Your task to perform on an android device: Show the shopping cart on bestbuy. Add "logitech g502" to the cart on bestbuy Image 0: 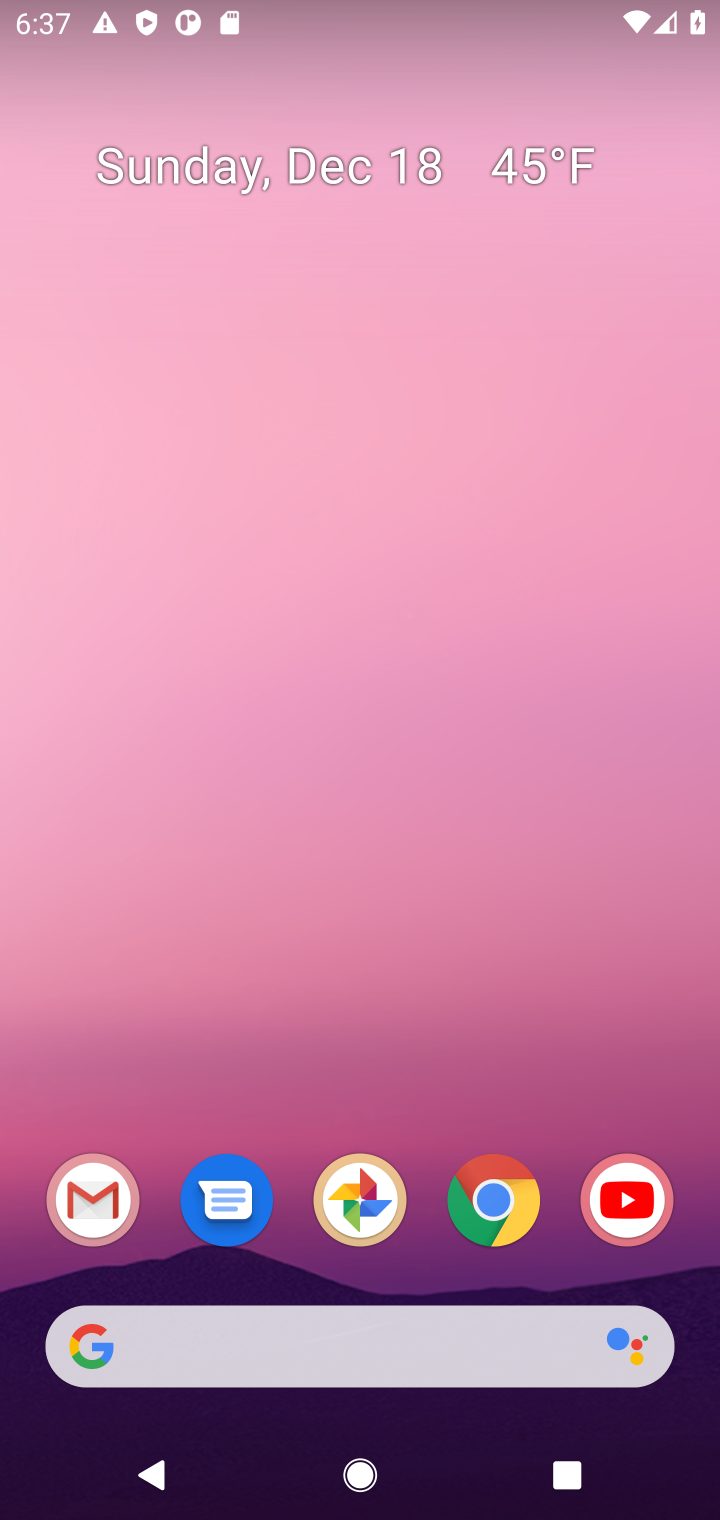
Step 0: click (499, 1211)
Your task to perform on an android device: Show the shopping cart on bestbuy. Add "logitech g502" to the cart on bestbuy Image 1: 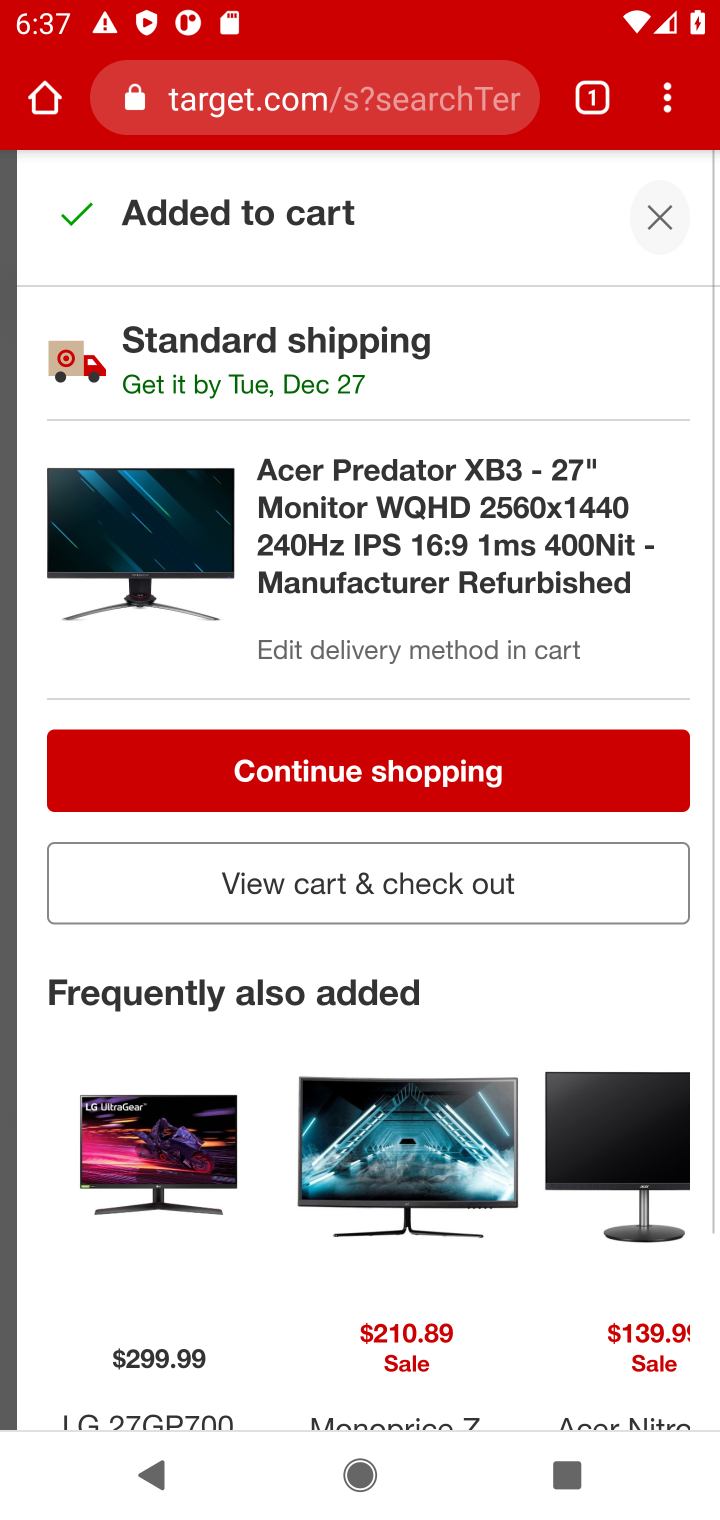
Step 1: click (336, 89)
Your task to perform on an android device: Show the shopping cart on bestbuy. Add "logitech g502" to the cart on bestbuy Image 2: 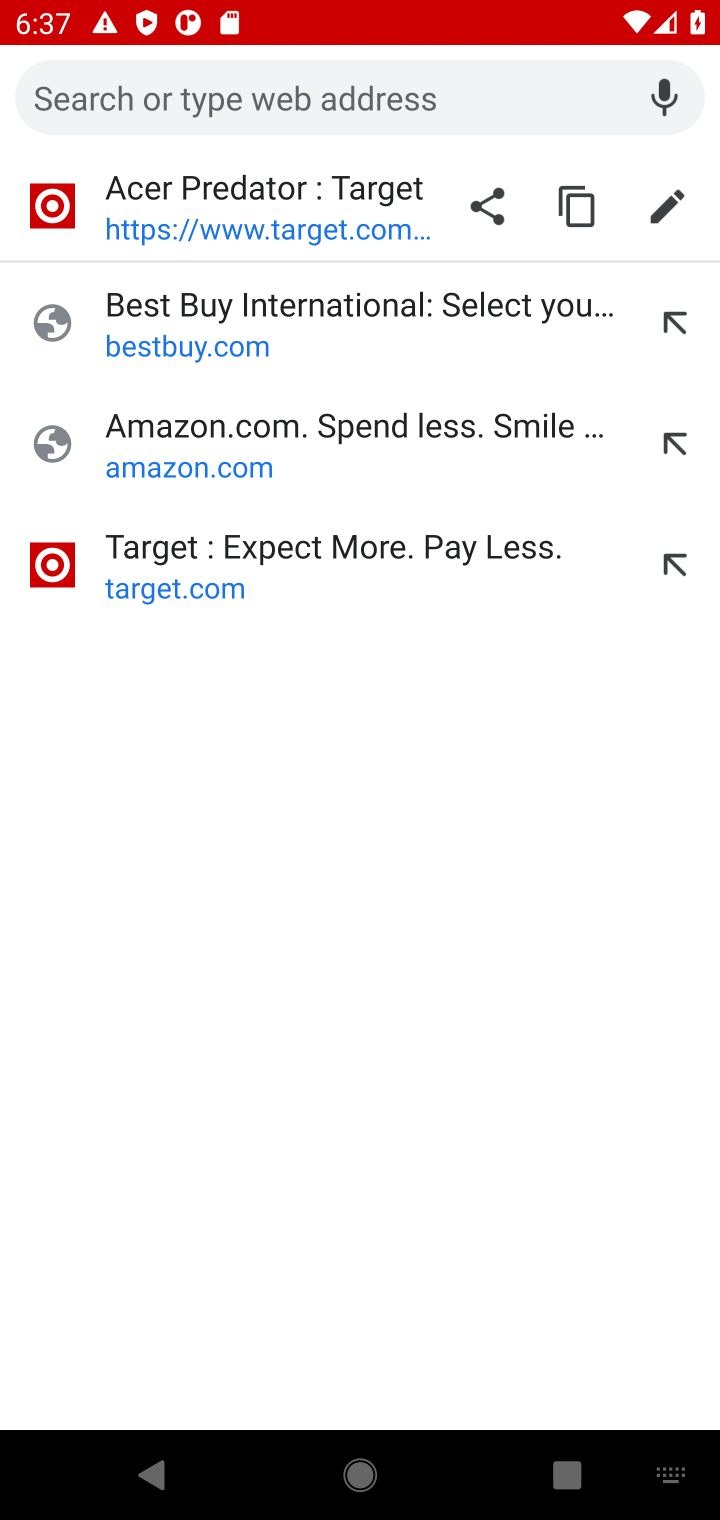
Step 2: click (169, 327)
Your task to perform on an android device: Show the shopping cart on bestbuy. Add "logitech g502" to the cart on bestbuy Image 3: 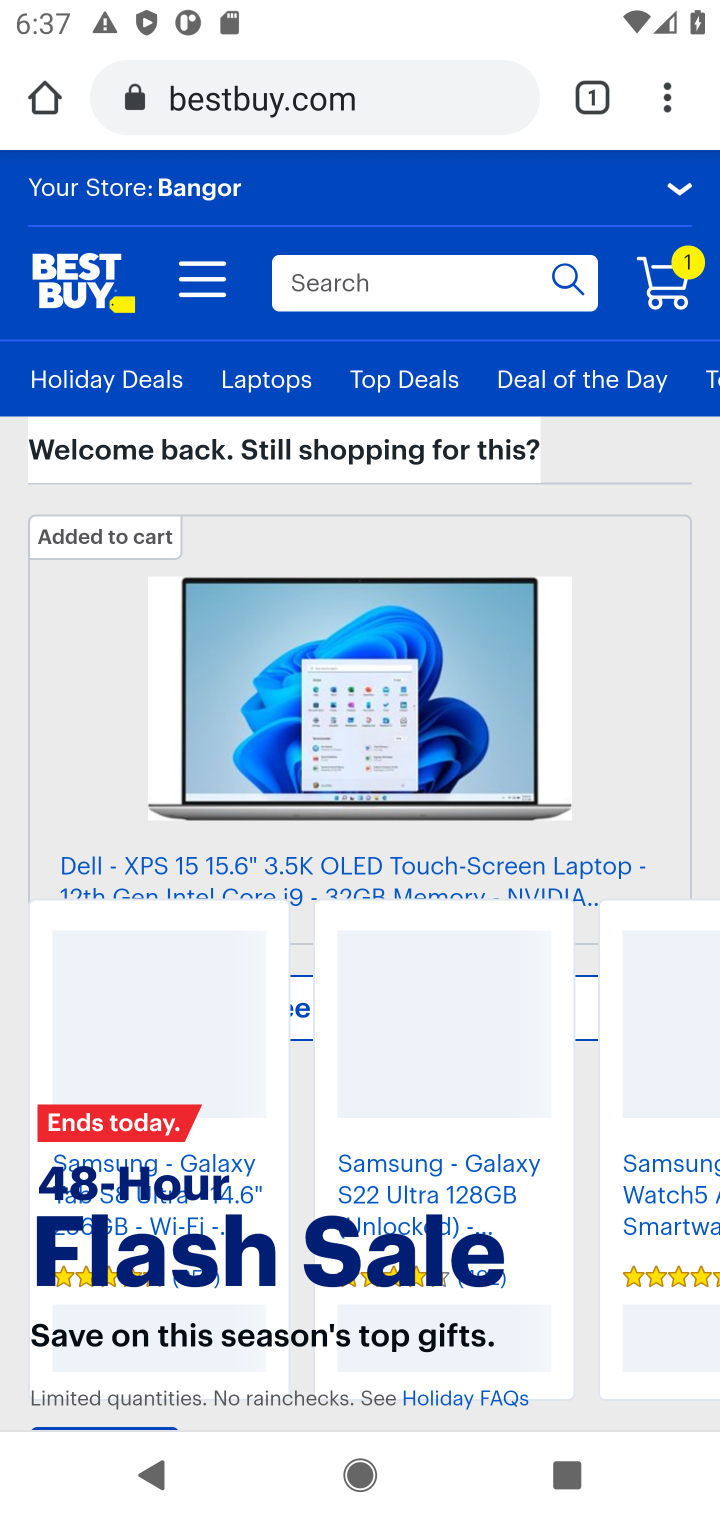
Step 3: click (668, 292)
Your task to perform on an android device: Show the shopping cart on bestbuy. Add "logitech g502" to the cart on bestbuy Image 4: 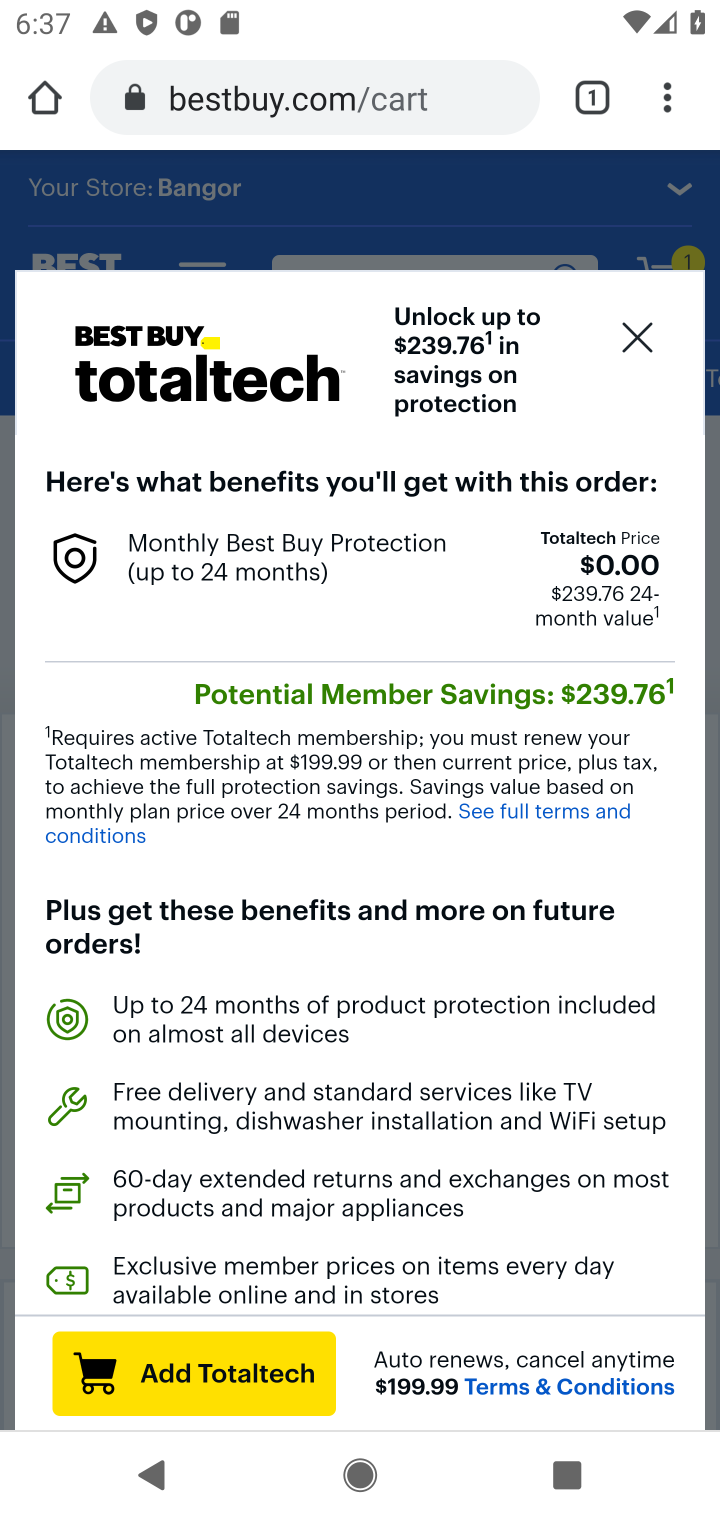
Step 4: click (636, 327)
Your task to perform on an android device: Show the shopping cart on bestbuy. Add "logitech g502" to the cart on bestbuy Image 5: 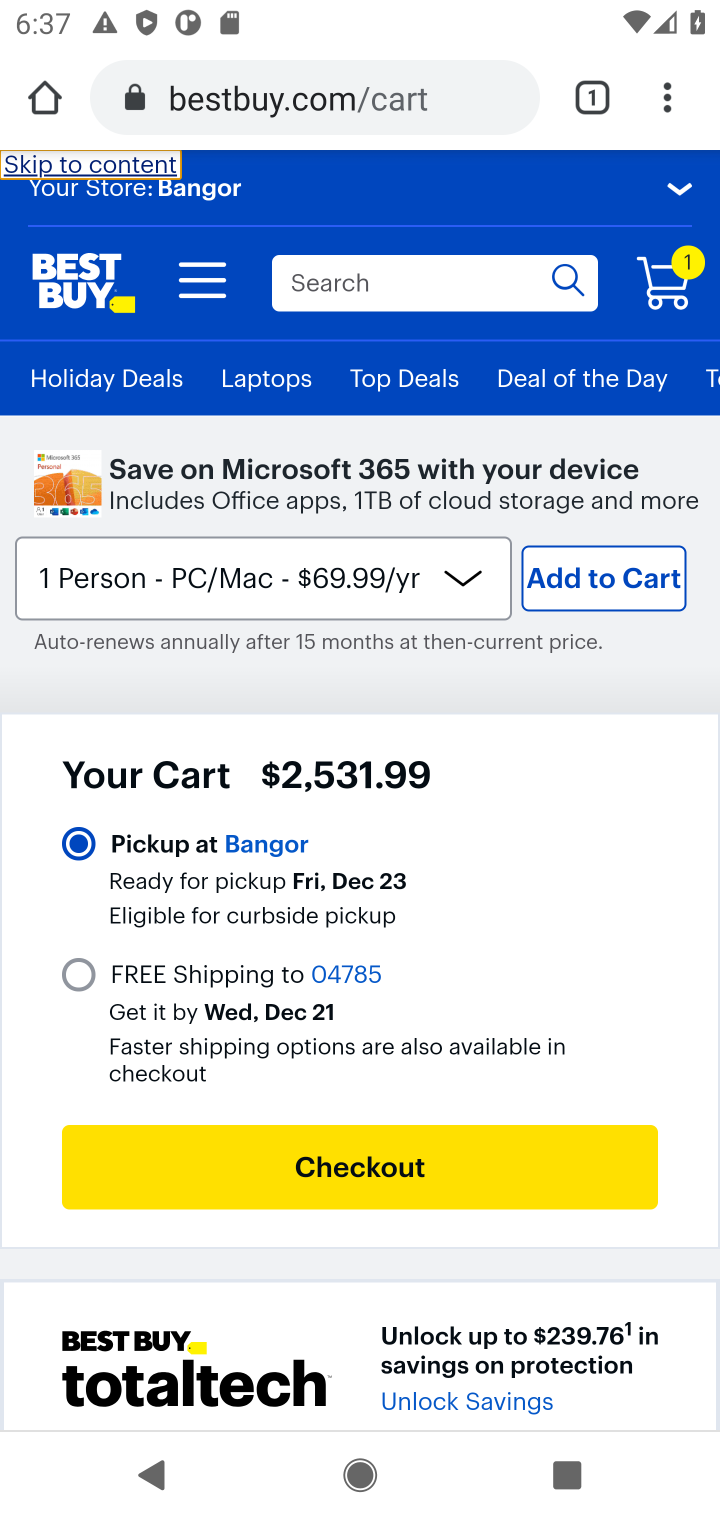
Step 5: drag from (427, 968) to (386, 529)
Your task to perform on an android device: Show the shopping cart on bestbuy. Add "logitech g502" to the cart on bestbuy Image 6: 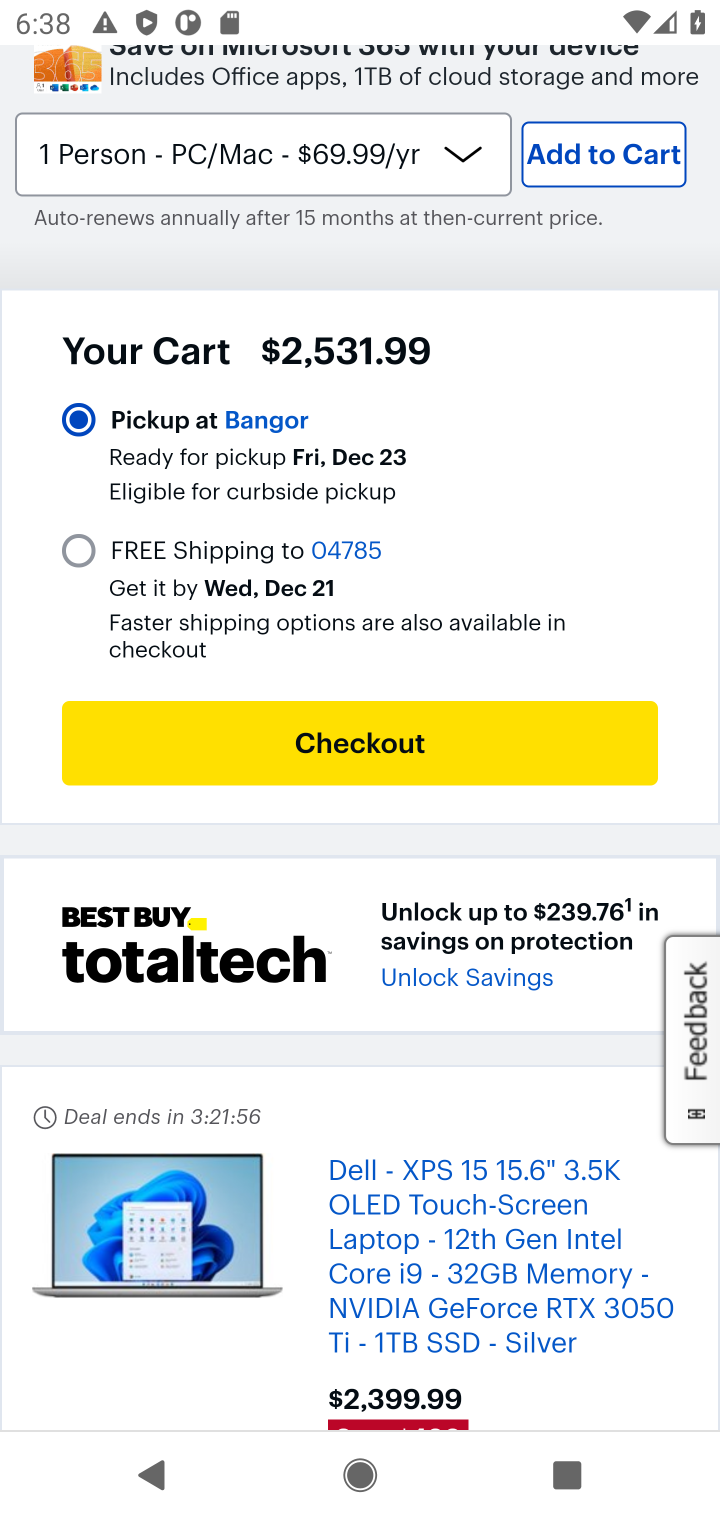
Step 6: drag from (438, 712) to (457, 1115)
Your task to perform on an android device: Show the shopping cart on bestbuy. Add "logitech g502" to the cart on bestbuy Image 7: 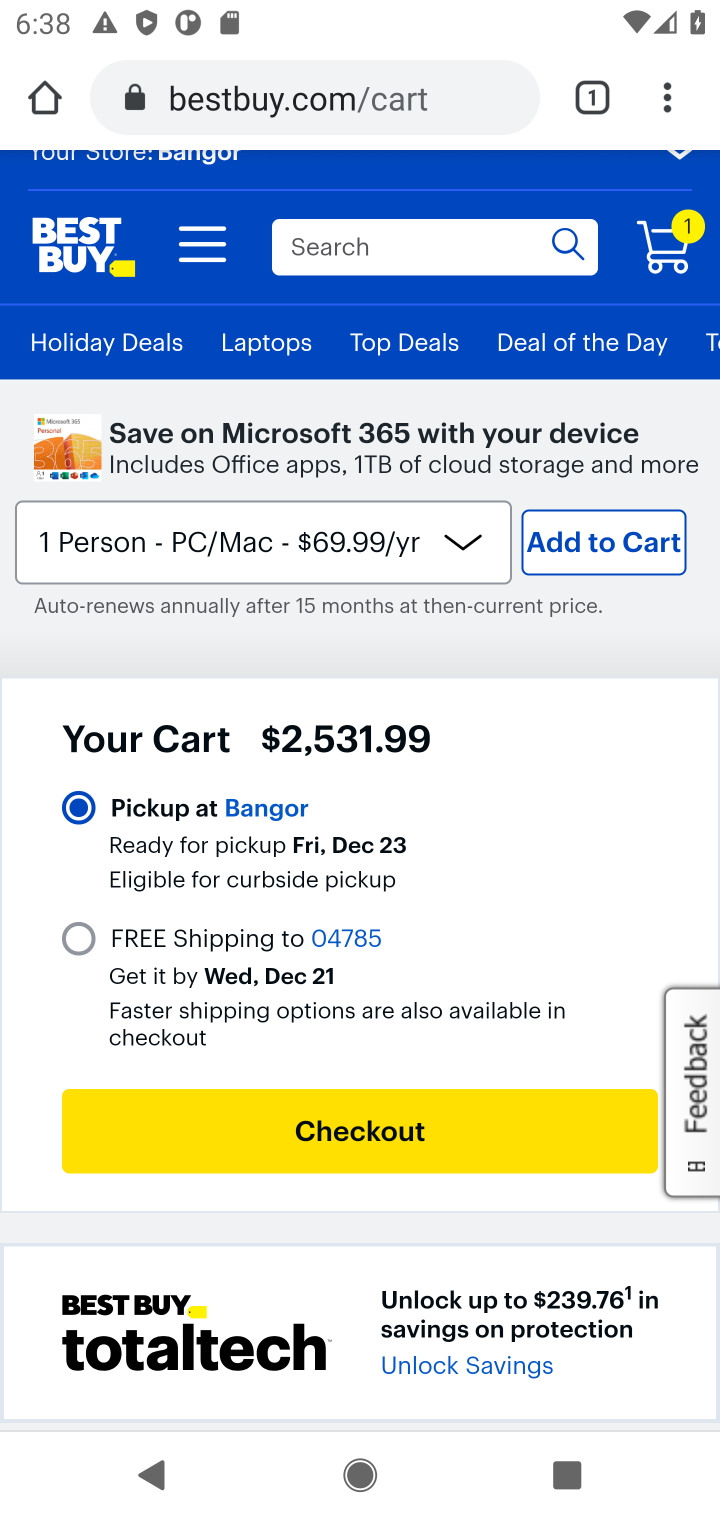
Step 7: click (313, 253)
Your task to perform on an android device: Show the shopping cart on bestbuy. Add "logitech g502" to the cart on bestbuy Image 8: 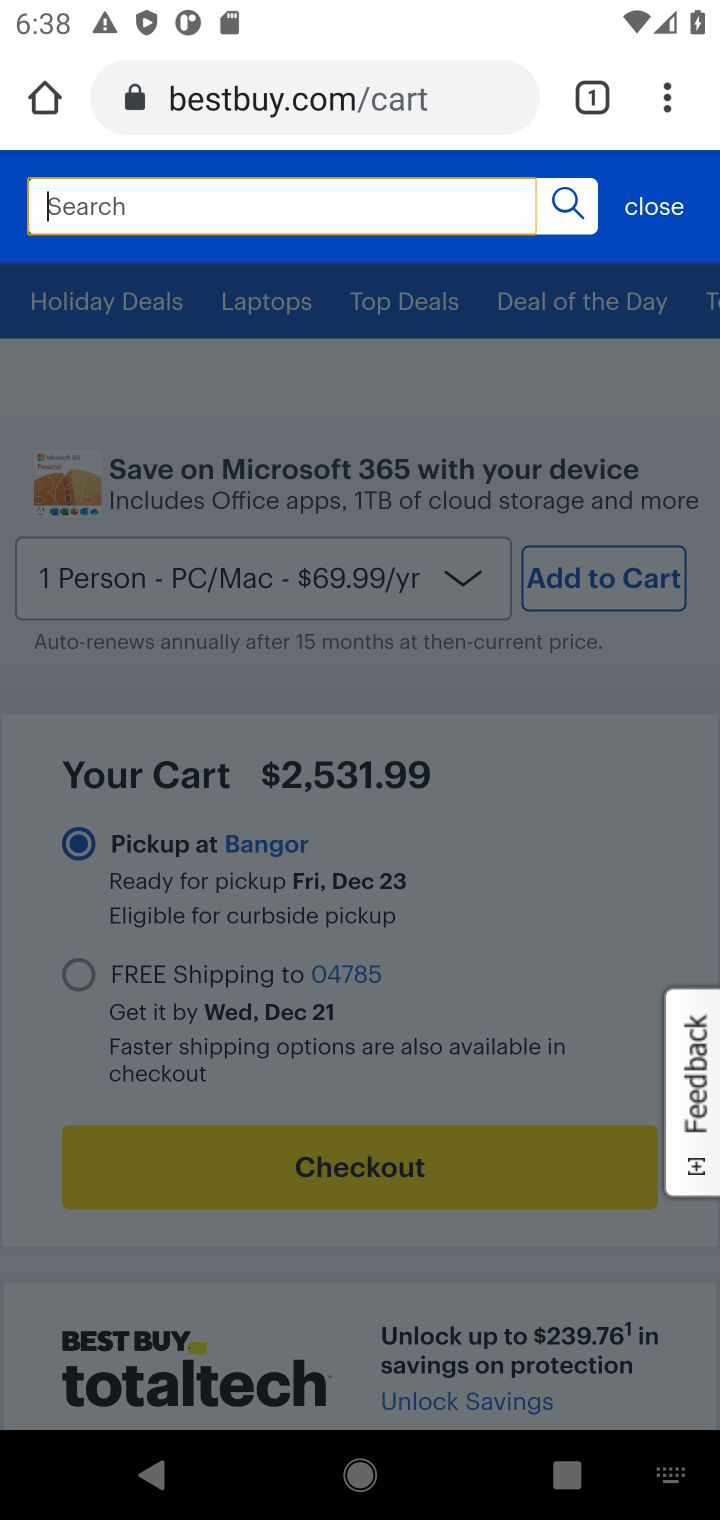
Step 8: type "logitech g502"
Your task to perform on an android device: Show the shopping cart on bestbuy. Add "logitech g502" to the cart on bestbuy Image 9: 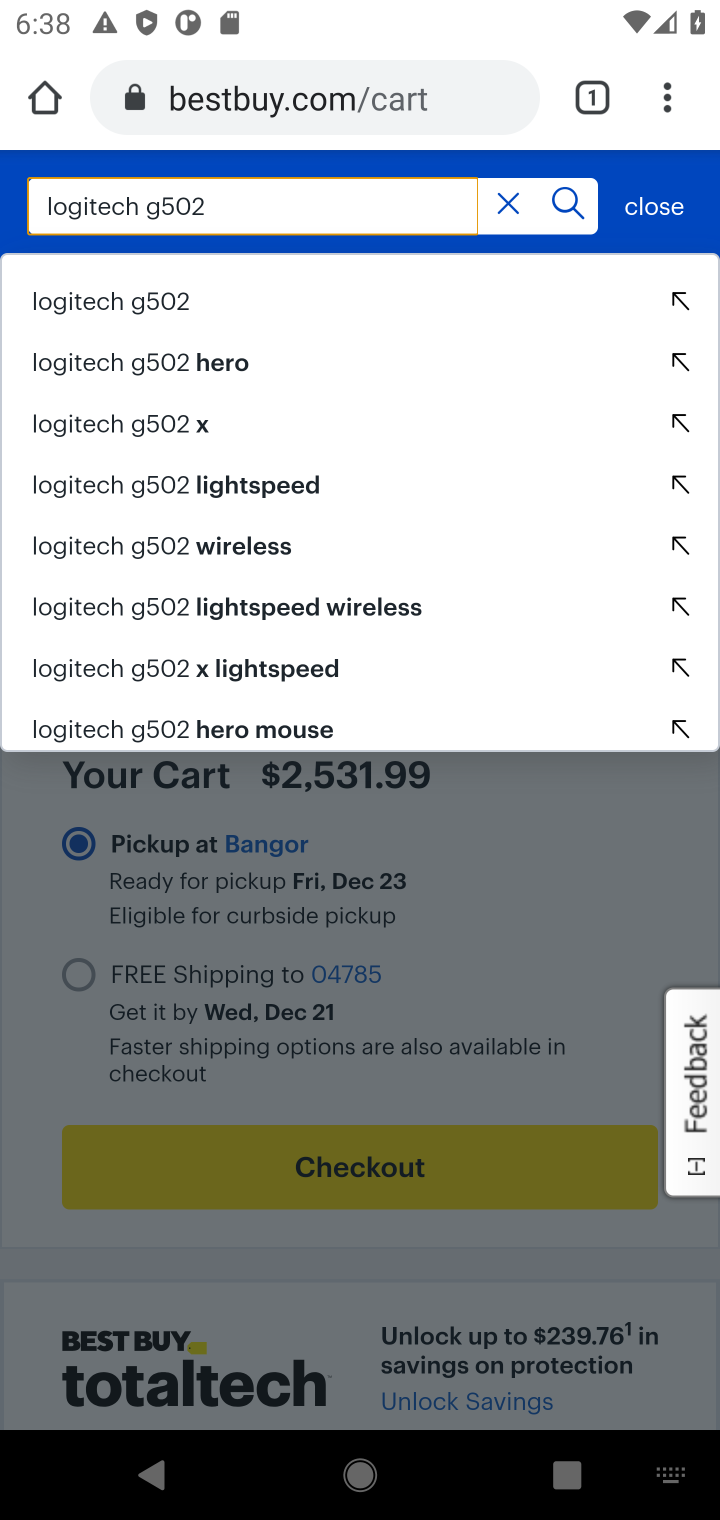
Step 9: click (186, 299)
Your task to perform on an android device: Show the shopping cart on bestbuy. Add "logitech g502" to the cart on bestbuy Image 10: 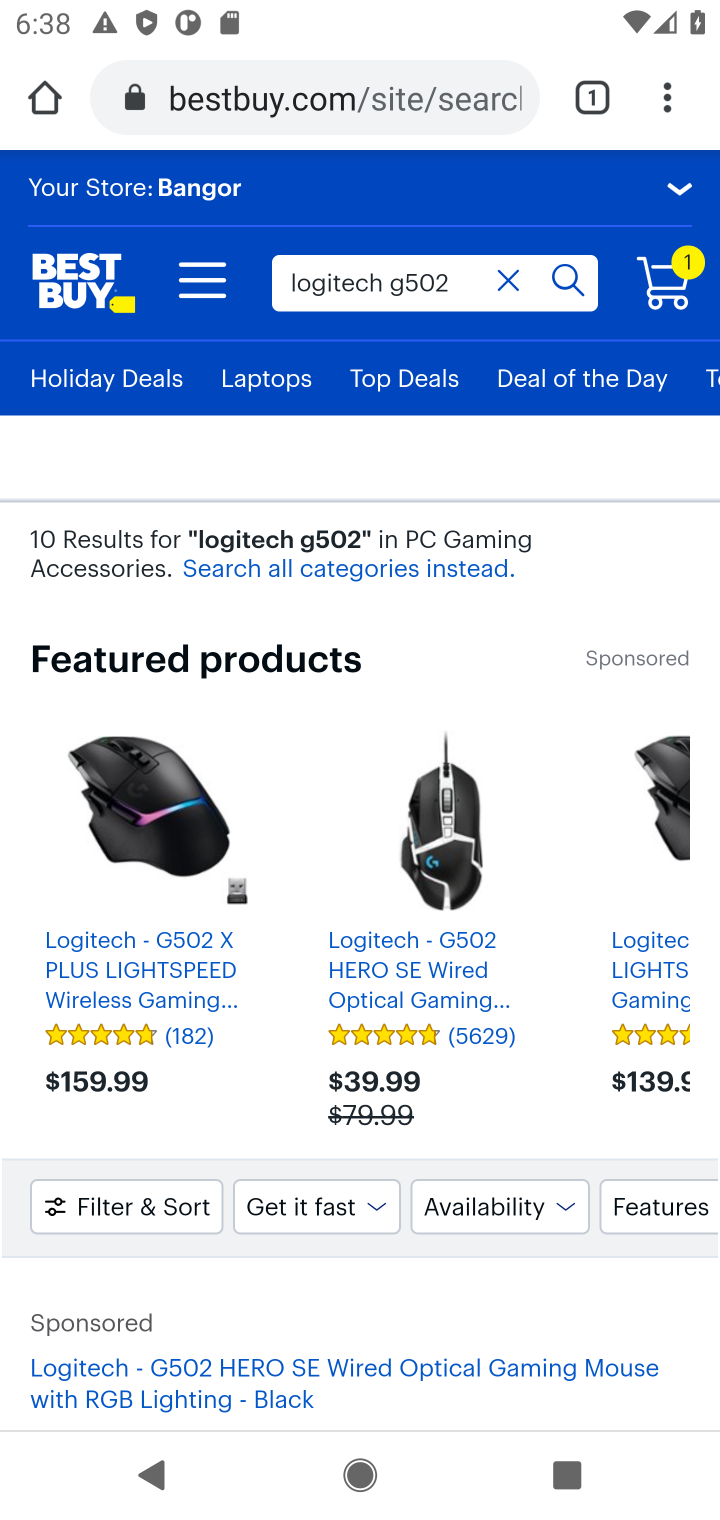
Step 10: drag from (315, 1251) to (371, 514)
Your task to perform on an android device: Show the shopping cart on bestbuy. Add "logitech g502" to the cart on bestbuy Image 11: 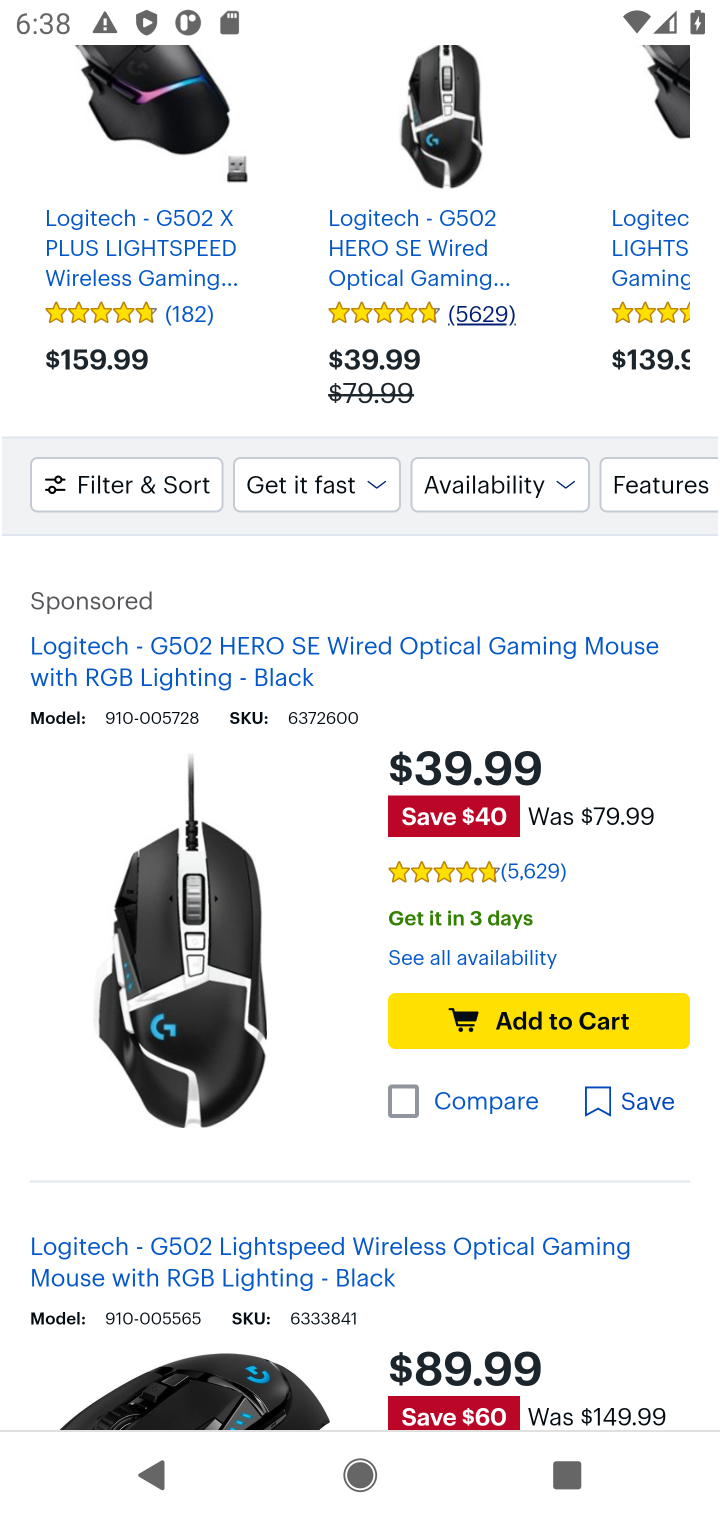
Step 11: click (481, 1031)
Your task to perform on an android device: Show the shopping cart on bestbuy. Add "logitech g502" to the cart on bestbuy Image 12: 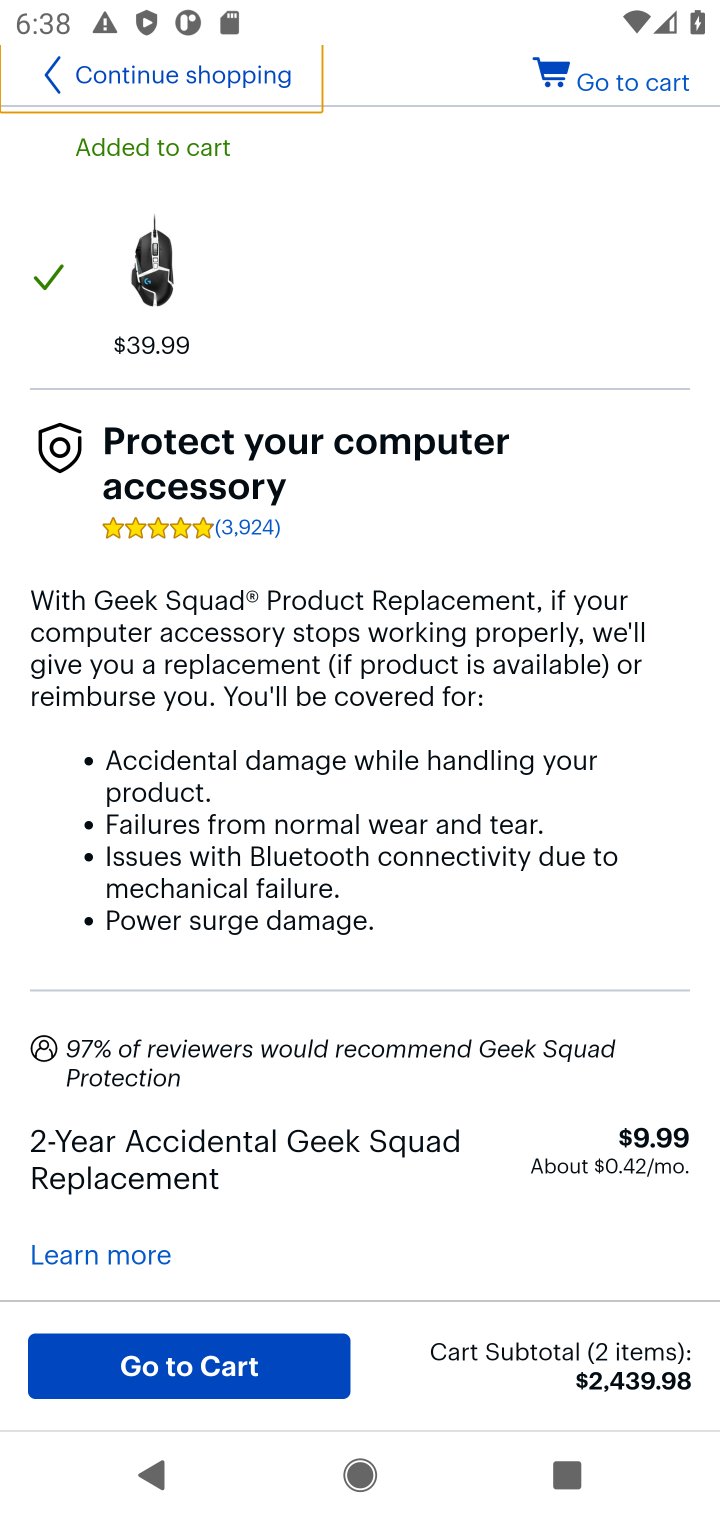
Step 12: task complete